Your task to perform on an android device: star an email in the gmail app Image 0: 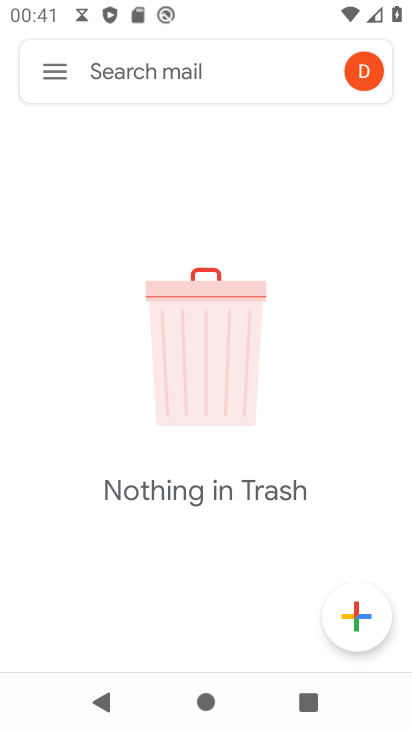
Step 0: press home button
Your task to perform on an android device: star an email in the gmail app Image 1: 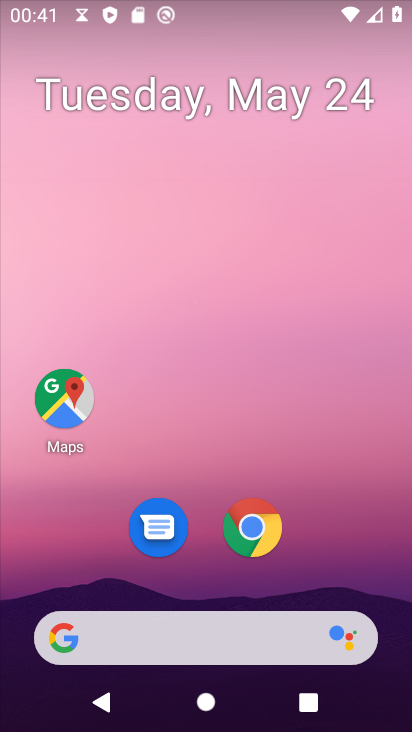
Step 1: drag from (163, 617) to (336, 82)
Your task to perform on an android device: star an email in the gmail app Image 2: 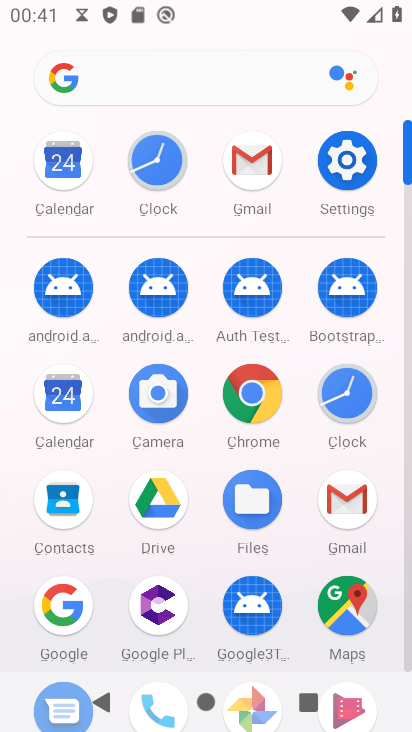
Step 2: click (338, 491)
Your task to perform on an android device: star an email in the gmail app Image 3: 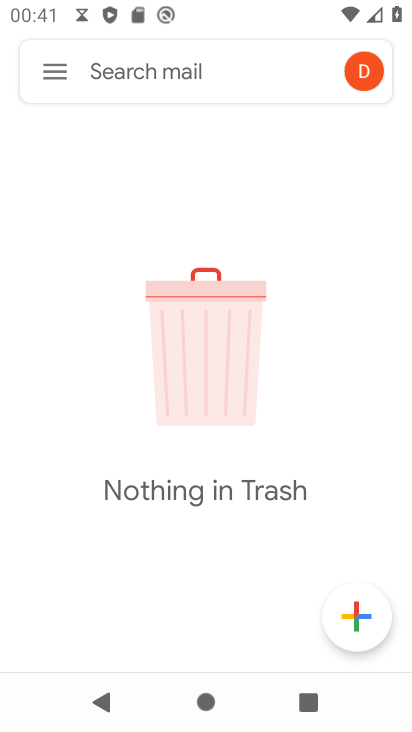
Step 3: click (51, 73)
Your task to perform on an android device: star an email in the gmail app Image 4: 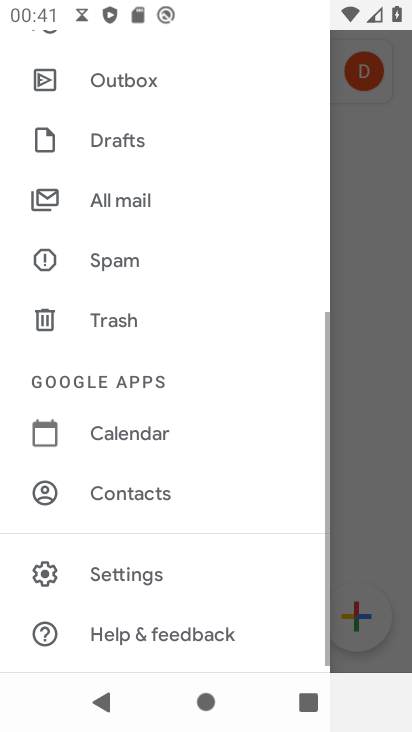
Step 4: drag from (259, 246) to (206, 594)
Your task to perform on an android device: star an email in the gmail app Image 5: 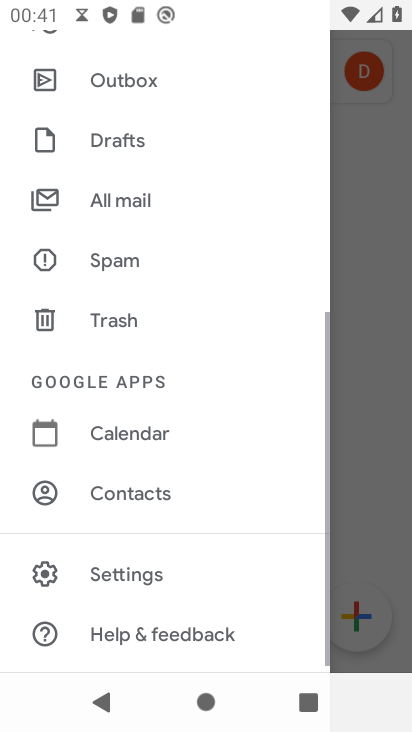
Step 5: drag from (227, 196) to (262, 590)
Your task to perform on an android device: star an email in the gmail app Image 6: 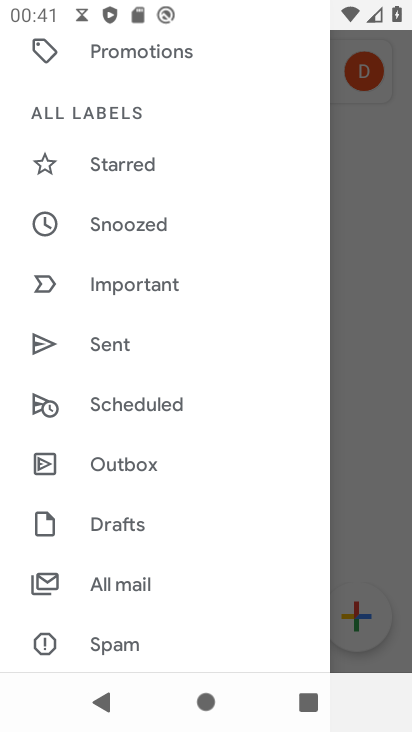
Step 6: drag from (202, 50) to (202, 570)
Your task to perform on an android device: star an email in the gmail app Image 7: 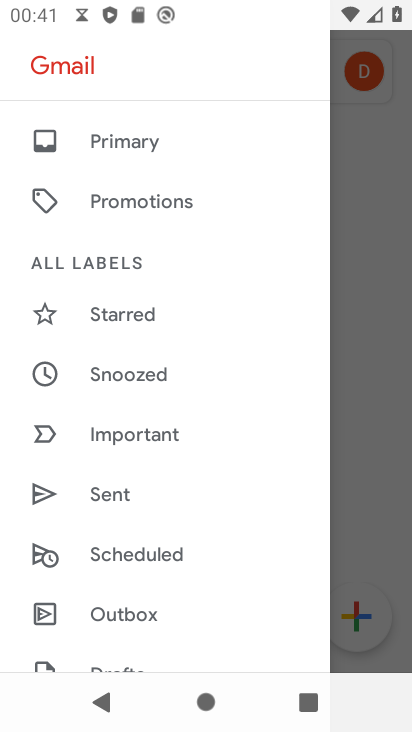
Step 7: click (164, 136)
Your task to perform on an android device: star an email in the gmail app Image 8: 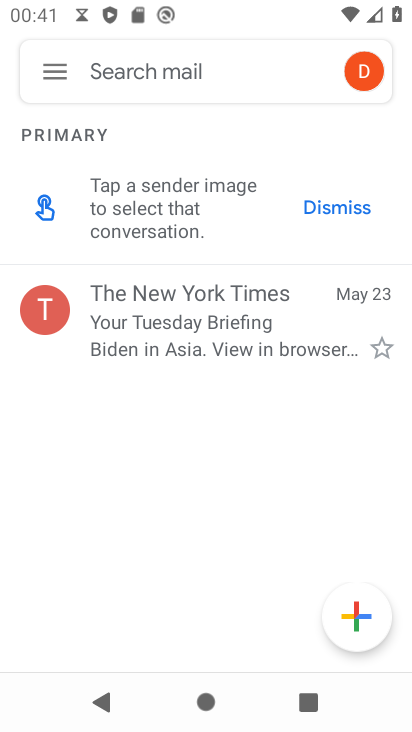
Step 8: click (51, 314)
Your task to perform on an android device: star an email in the gmail app Image 9: 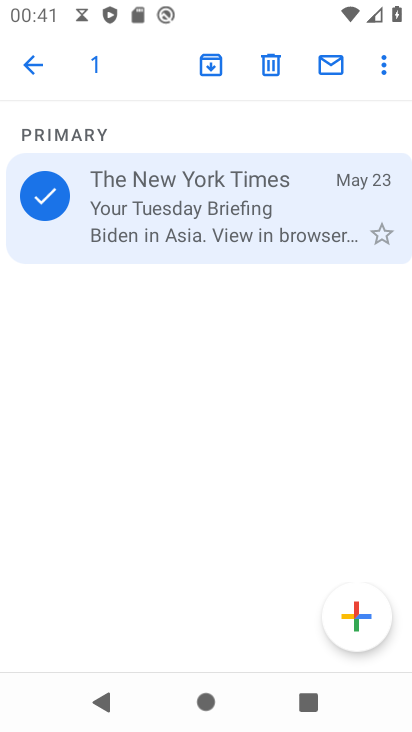
Step 9: click (388, 64)
Your task to perform on an android device: star an email in the gmail app Image 10: 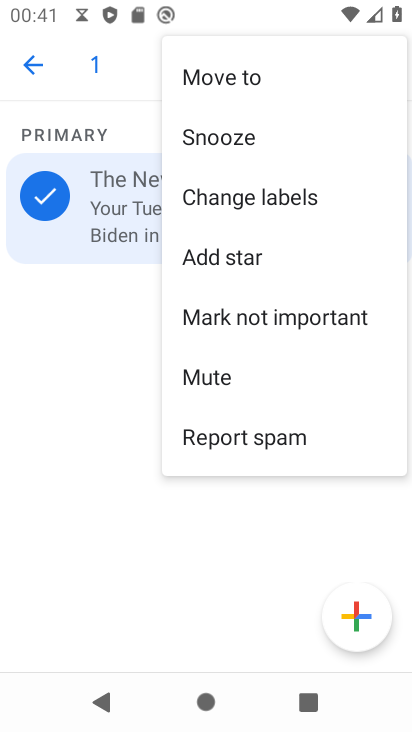
Step 10: click (251, 252)
Your task to perform on an android device: star an email in the gmail app Image 11: 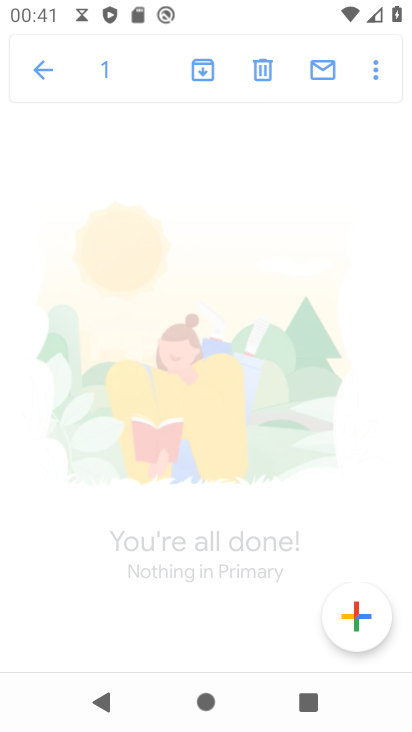
Step 11: click (38, 200)
Your task to perform on an android device: star an email in the gmail app Image 12: 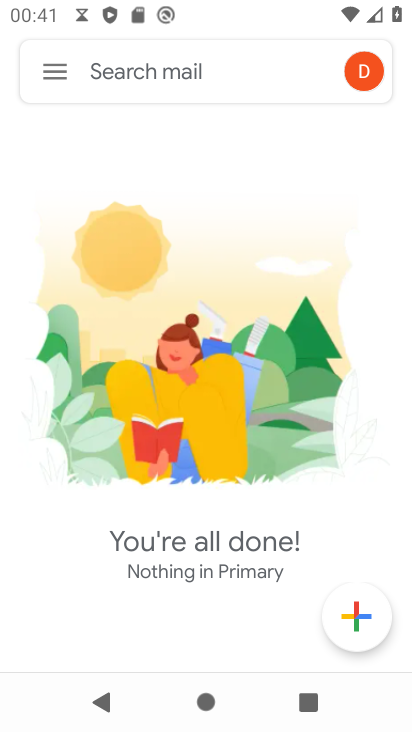
Step 12: task complete